Your task to perform on an android device: Open the map Image 0: 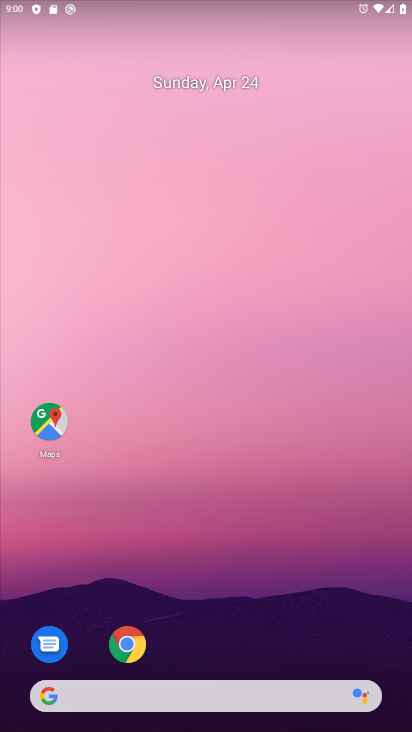
Step 0: drag from (198, 674) to (189, 136)
Your task to perform on an android device: Open the map Image 1: 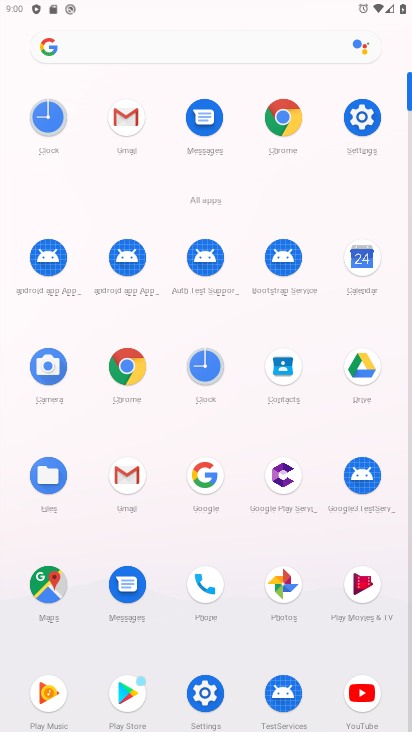
Step 1: click (54, 607)
Your task to perform on an android device: Open the map Image 2: 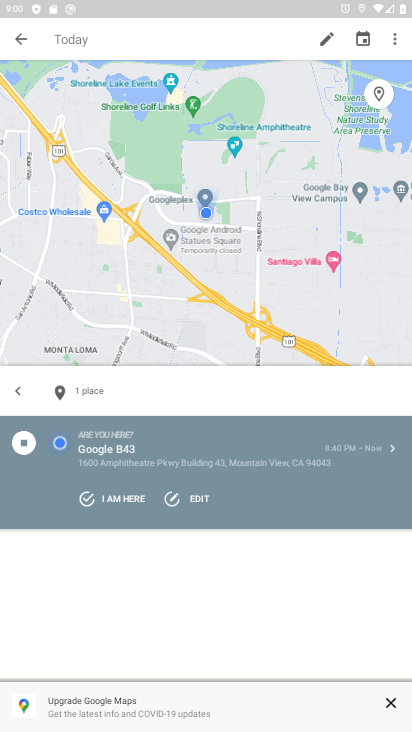
Step 2: click (22, 52)
Your task to perform on an android device: Open the map Image 3: 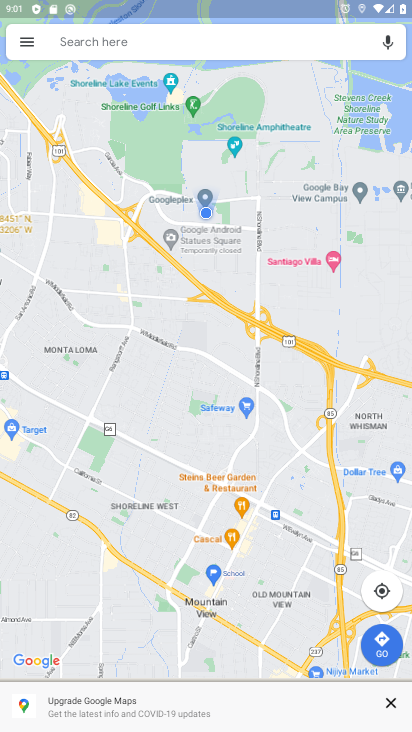
Step 3: task complete